Your task to perform on an android device: Open Google Chrome and open the bookmarks view Image 0: 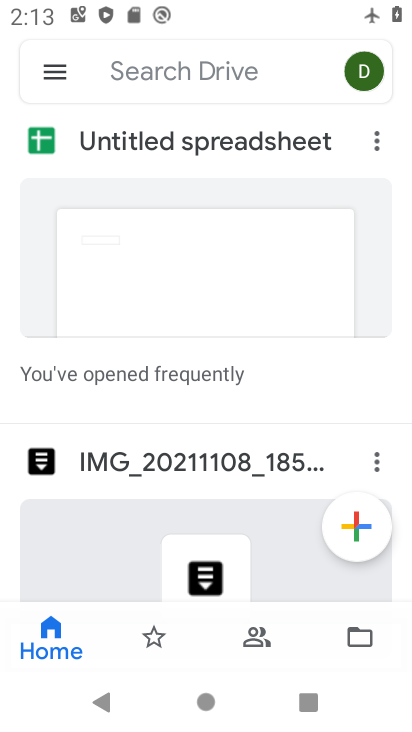
Step 0: press home button
Your task to perform on an android device: Open Google Chrome and open the bookmarks view Image 1: 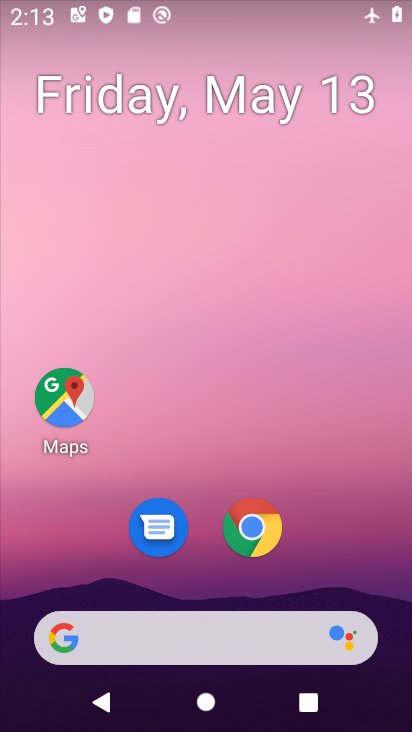
Step 1: click (241, 530)
Your task to perform on an android device: Open Google Chrome and open the bookmarks view Image 2: 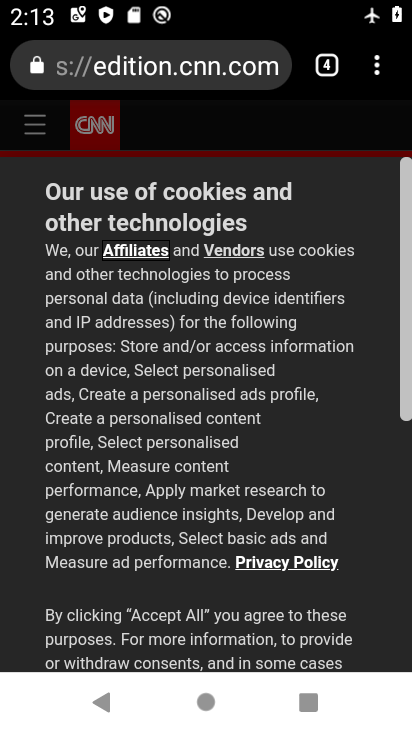
Step 2: click (397, 58)
Your task to perform on an android device: Open Google Chrome and open the bookmarks view Image 3: 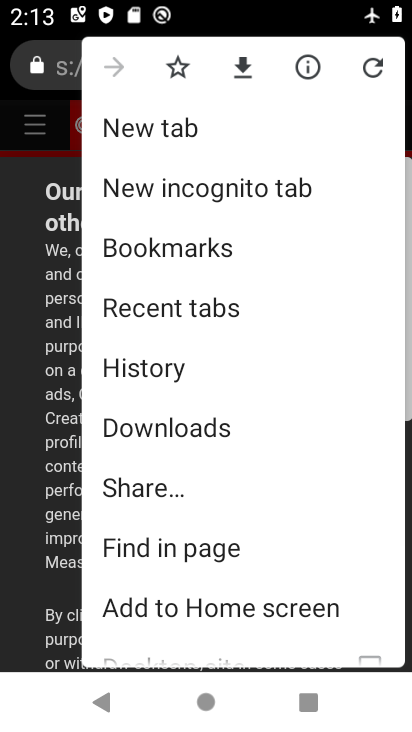
Step 3: click (175, 241)
Your task to perform on an android device: Open Google Chrome and open the bookmarks view Image 4: 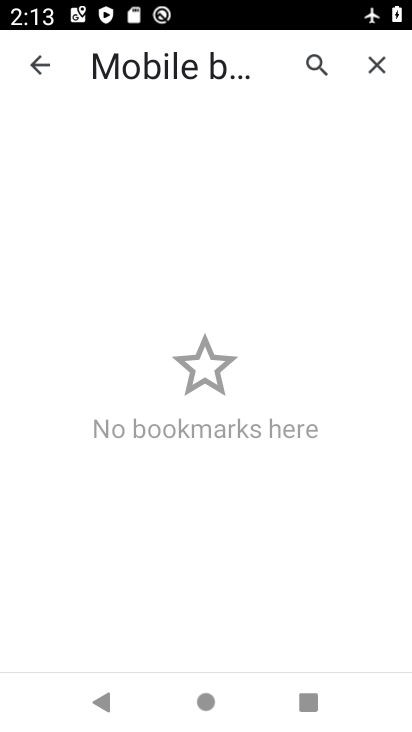
Step 4: task complete